Your task to perform on an android device: Open eBay Image 0: 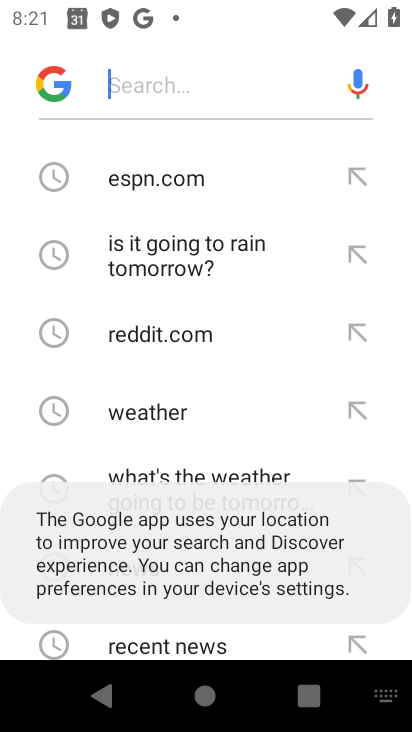
Step 0: press home button
Your task to perform on an android device: Open eBay Image 1: 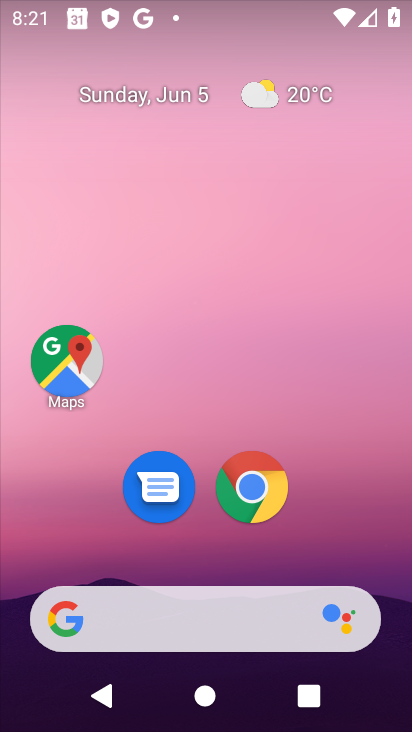
Step 1: click (238, 477)
Your task to perform on an android device: Open eBay Image 2: 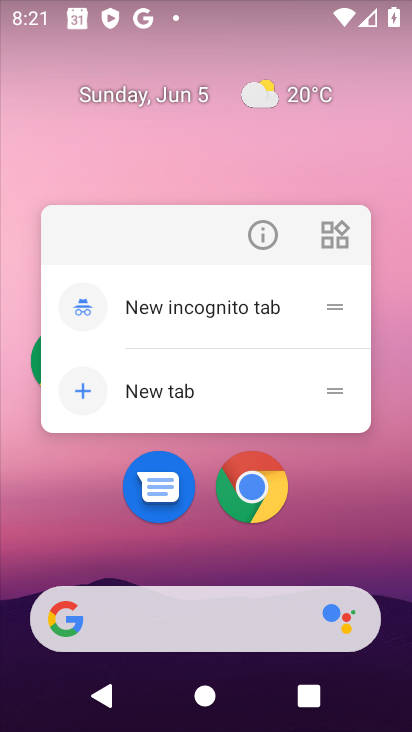
Step 2: click (245, 478)
Your task to perform on an android device: Open eBay Image 3: 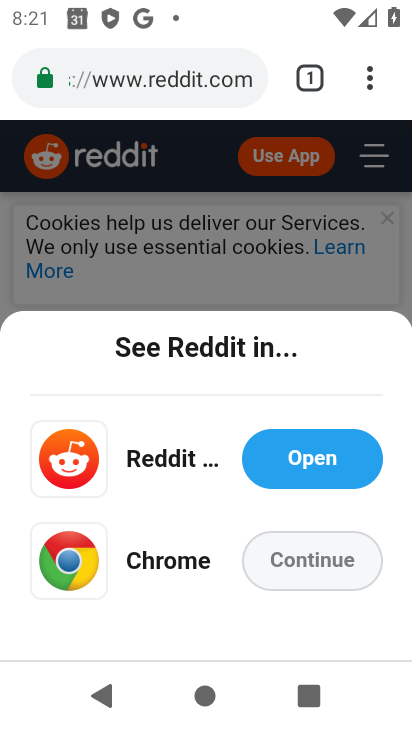
Step 3: click (212, 276)
Your task to perform on an android device: Open eBay Image 4: 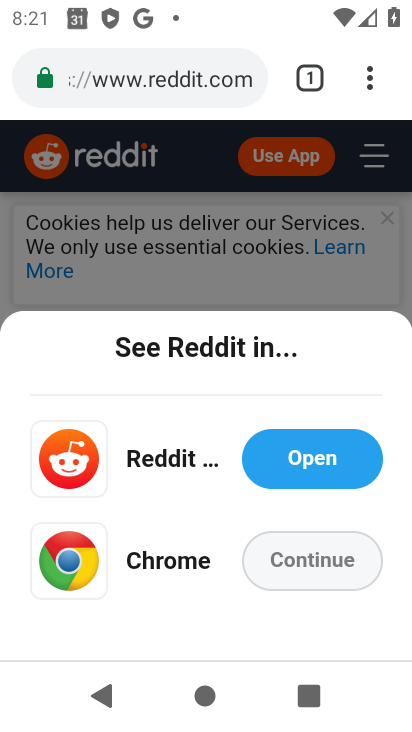
Step 4: click (304, 66)
Your task to perform on an android device: Open eBay Image 5: 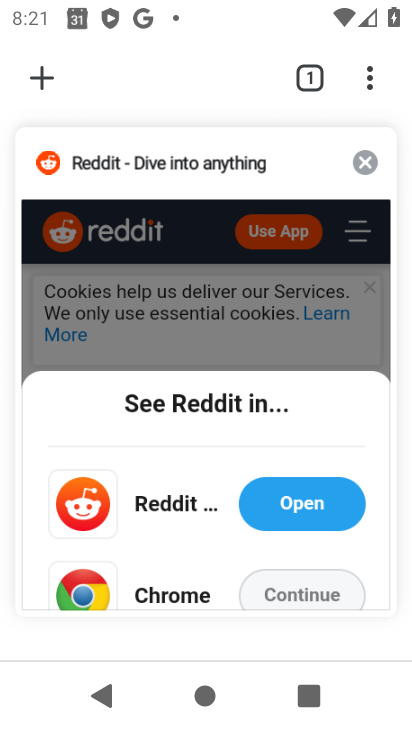
Step 5: click (41, 80)
Your task to perform on an android device: Open eBay Image 6: 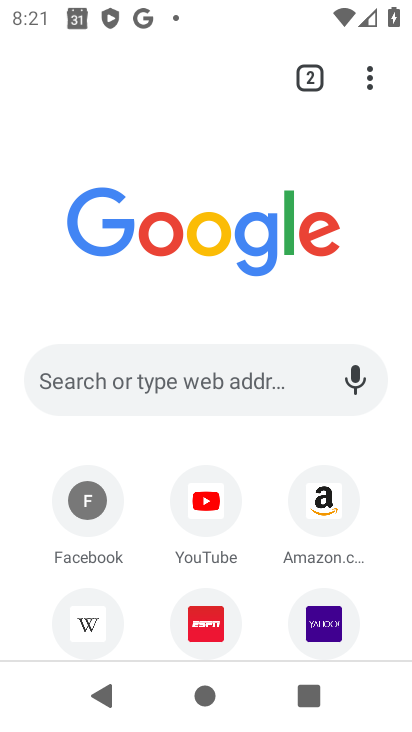
Step 6: drag from (234, 627) to (301, 280)
Your task to perform on an android device: Open eBay Image 7: 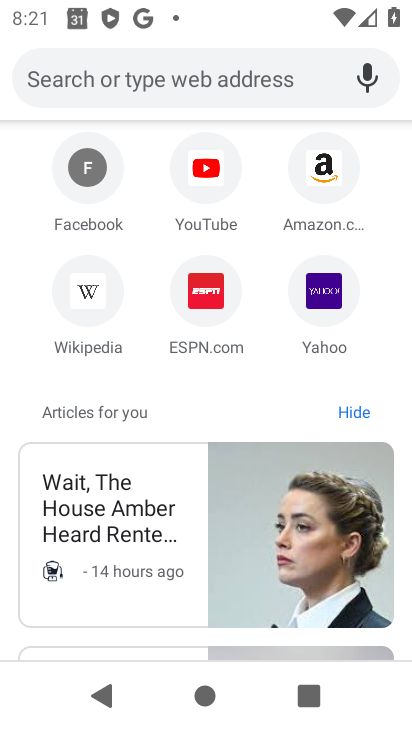
Step 7: click (161, 86)
Your task to perform on an android device: Open eBay Image 8: 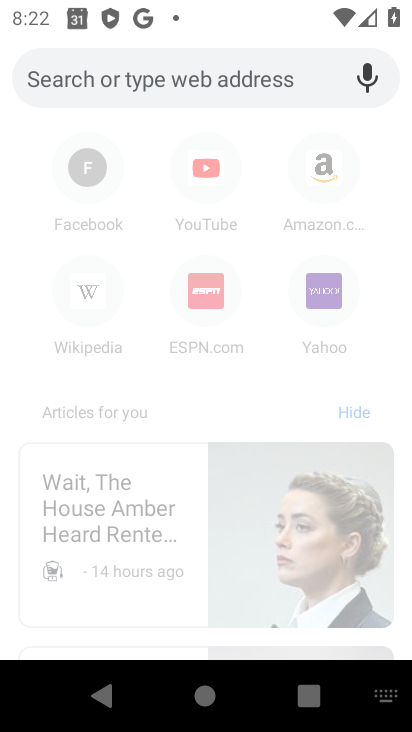
Step 8: type "ebay"
Your task to perform on an android device: Open eBay Image 9: 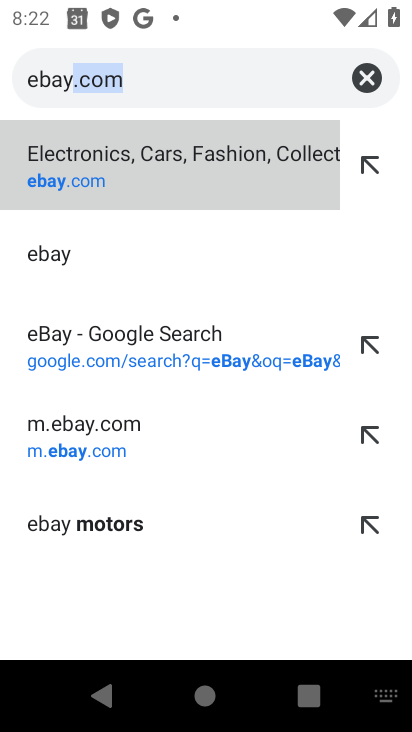
Step 9: click (130, 173)
Your task to perform on an android device: Open eBay Image 10: 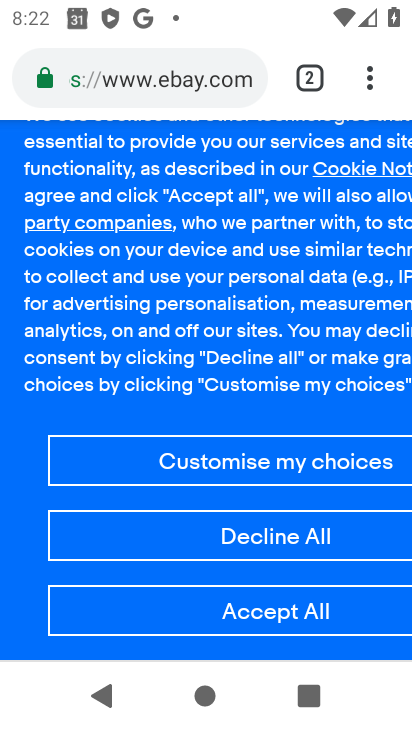
Step 10: task complete